Your task to perform on an android device: find which apps use the phone's location Image 0: 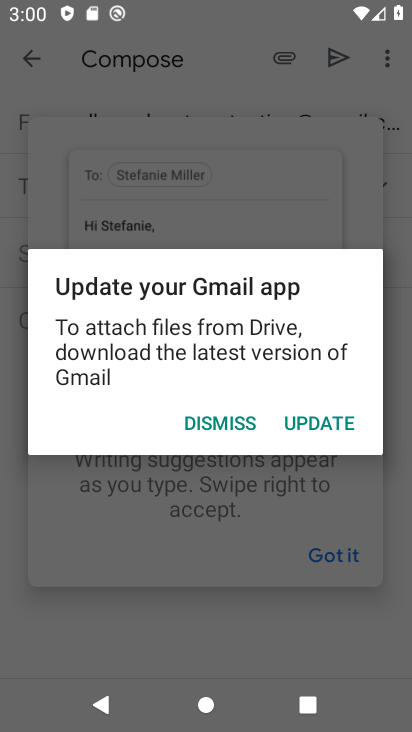
Step 0: press home button
Your task to perform on an android device: find which apps use the phone's location Image 1: 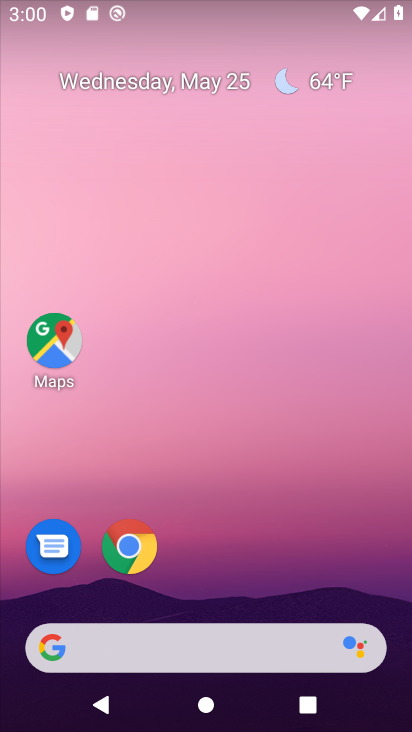
Step 1: drag from (186, 462) to (127, 299)
Your task to perform on an android device: find which apps use the phone's location Image 2: 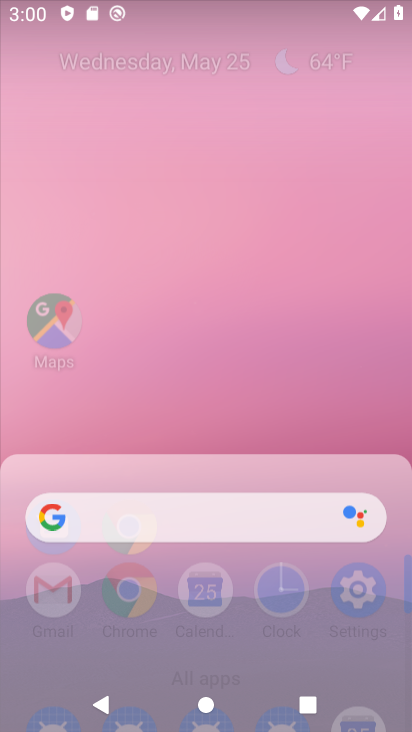
Step 2: click (110, 169)
Your task to perform on an android device: find which apps use the phone's location Image 3: 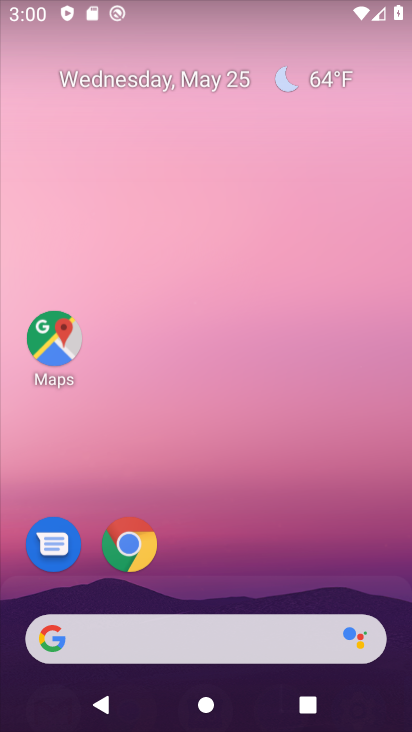
Step 3: click (88, 102)
Your task to perform on an android device: find which apps use the phone's location Image 4: 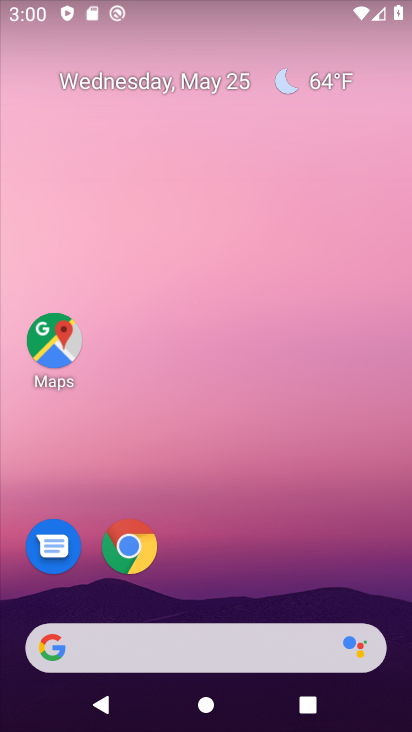
Step 4: drag from (367, 604) to (60, 74)
Your task to perform on an android device: find which apps use the phone's location Image 5: 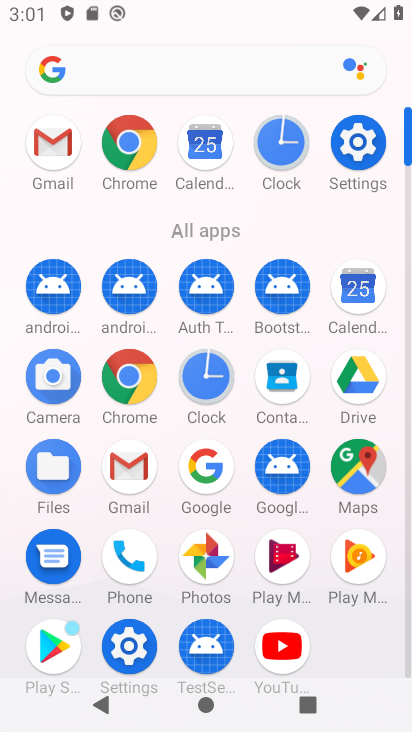
Step 5: click (135, 649)
Your task to perform on an android device: find which apps use the phone's location Image 6: 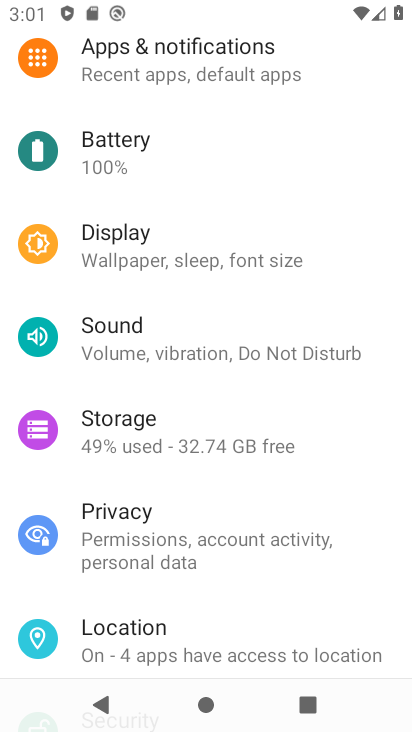
Step 6: click (140, 655)
Your task to perform on an android device: find which apps use the phone's location Image 7: 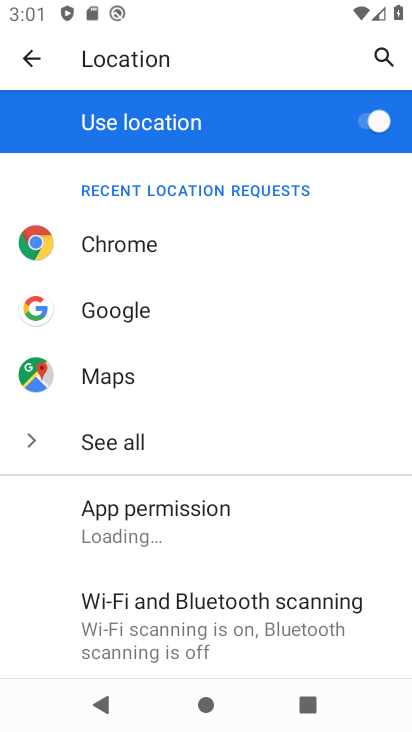
Step 7: click (152, 526)
Your task to perform on an android device: find which apps use the phone's location Image 8: 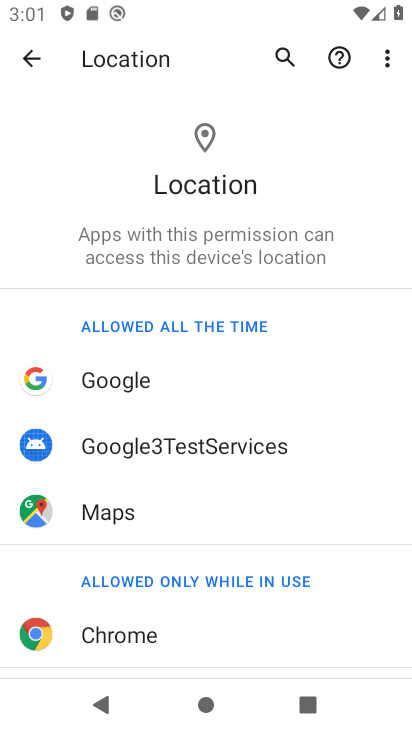
Step 8: task complete